Your task to perform on an android device: turn on priority inbox in the gmail app Image 0: 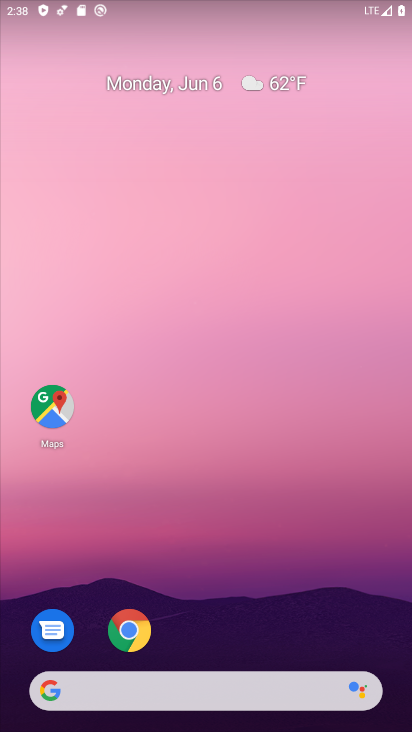
Step 0: drag from (257, 618) to (363, 207)
Your task to perform on an android device: turn on priority inbox in the gmail app Image 1: 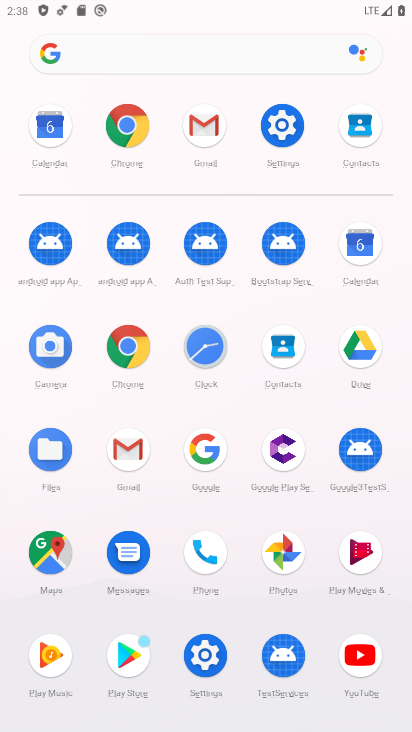
Step 1: click (119, 451)
Your task to perform on an android device: turn on priority inbox in the gmail app Image 2: 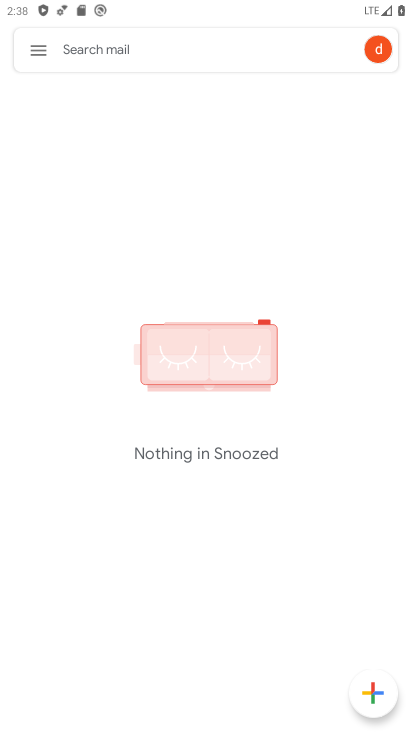
Step 2: click (37, 41)
Your task to perform on an android device: turn on priority inbox in the gmail app Image 3: 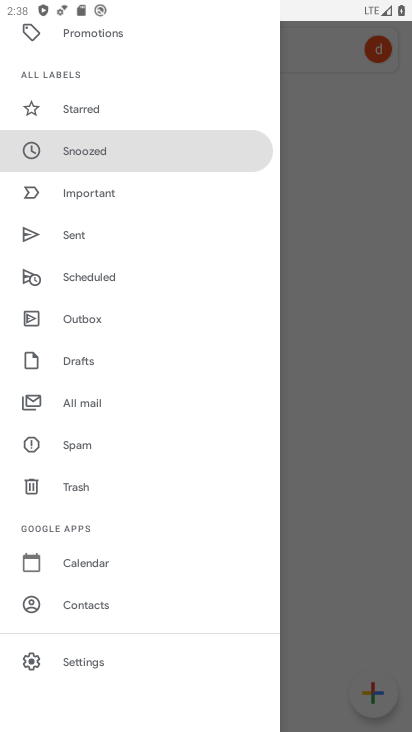
Step 3: click (65, 670)
Your task to perform on an android device: turn on priority inbox in the gmail app Image 4: 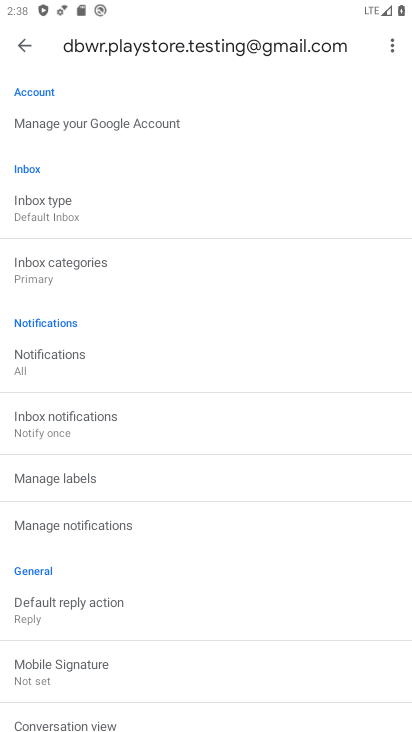
Step 4: click (48, 219)
Your task to perform on an android device: turn on priority inbox in the gmail app Image 5: 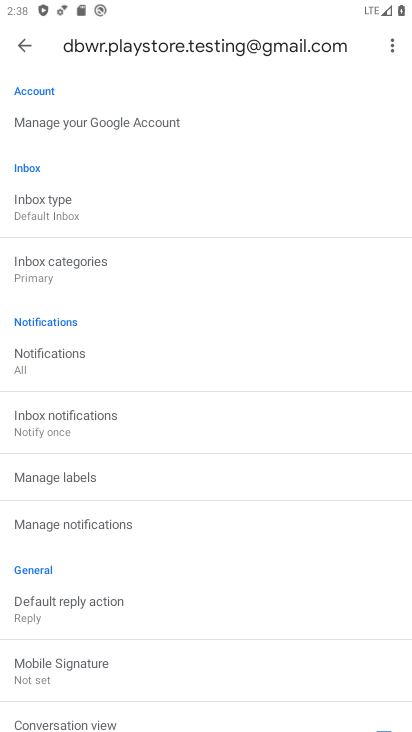
Step 5: click (48, 219)
Your task to perform on an android device: turn on priority inbox in the gmail app Image 6: 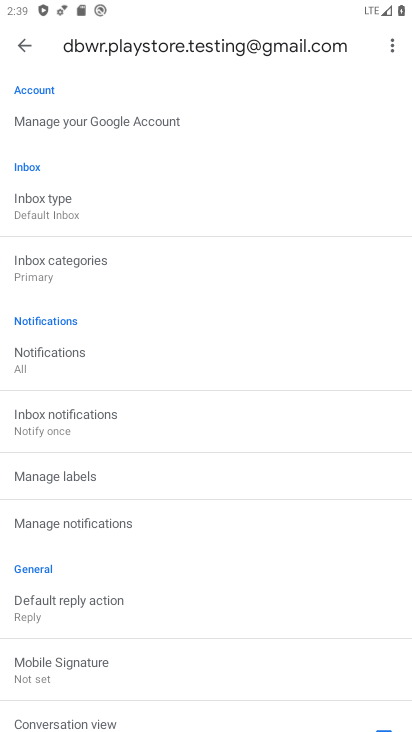
Step 6: click (65, 188)
Your task to perform on an android device: turn on priority inbox in the gmail app Image 7: 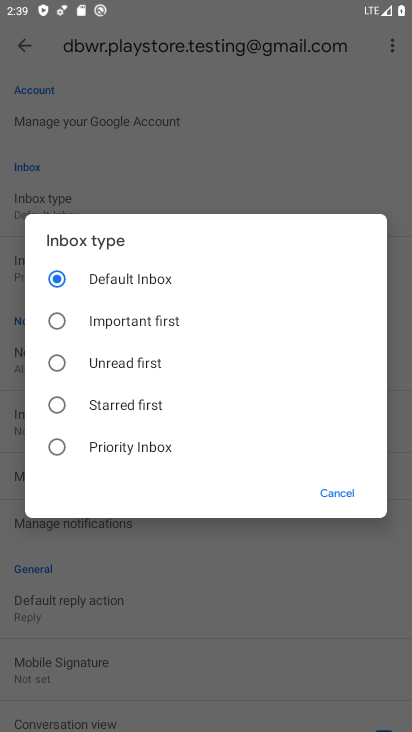
Step 7: click (131, 448)
Your task to perform on an android device: turn on priority inbox in the gmail app Image 8: 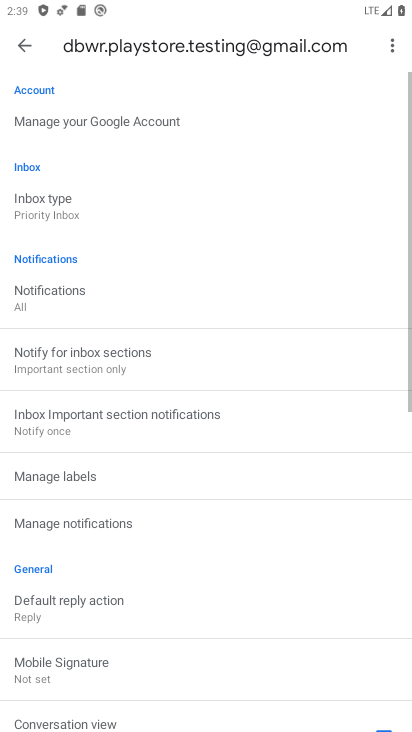
Step 8: task complete